Your task to perform on an android device: see creations saved in the google photos Image 0: 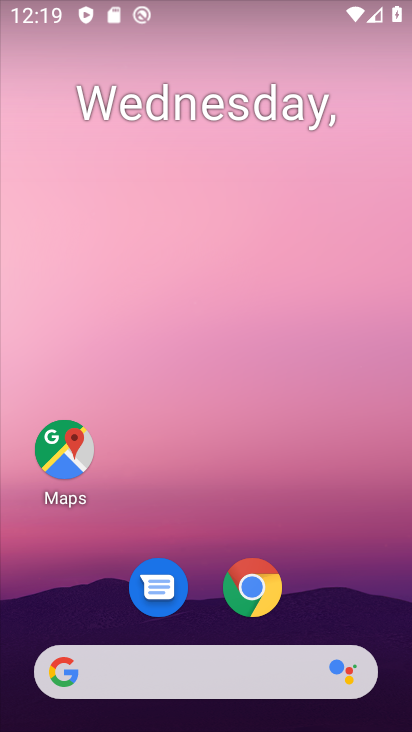
Step 0: drag from (321, 585) to (234, 71)
Your task to perform on an android device: see creations saved in the google photos Image 1: 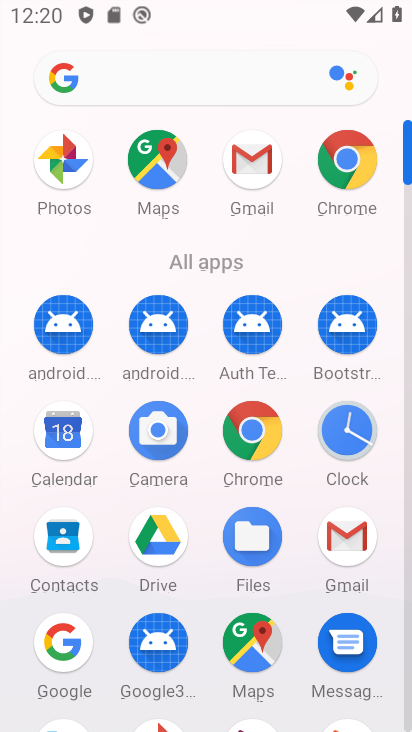
Step 1: drag from (278, 636) to (298, 343)
Your task to perform on an android device: see creations saved in the google photos Image 2: 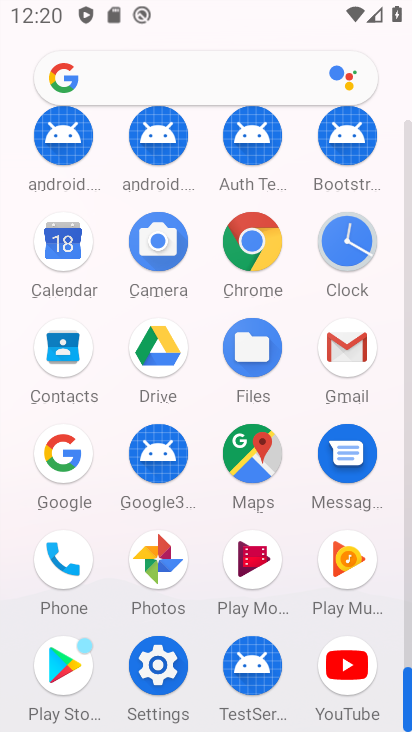
Step 2: click (155, 567)
Your task to perform on an android device: see creations saved in the google photos Image 3: 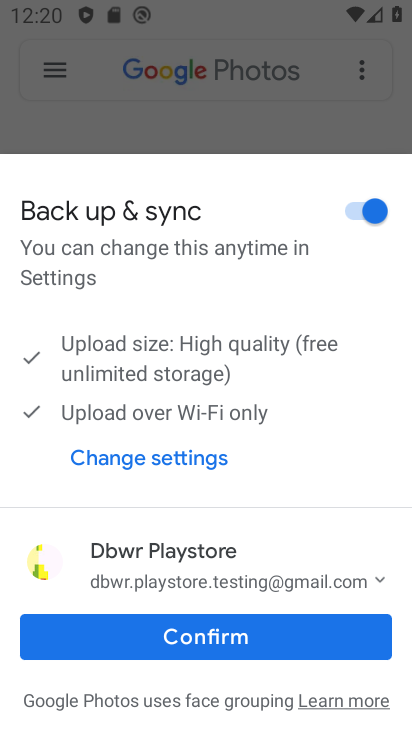
Step 3: click (242, 648)
Your task to perform on an android device: see creations saved in the google photos Image 4: 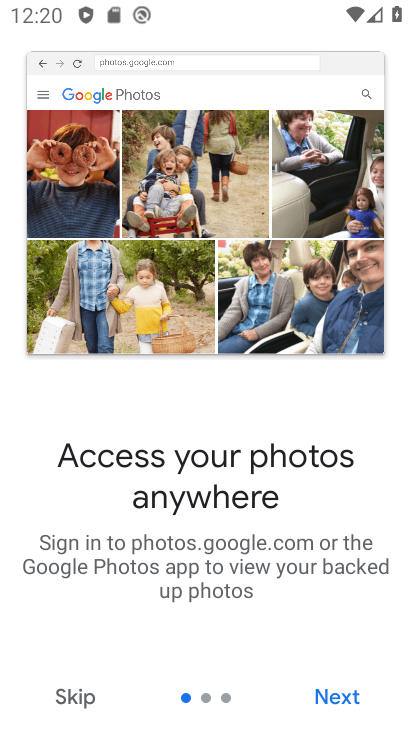
Step 4: click (315, 693)
Your task to perform on an android device: see creations saved in the google photos Image 5: 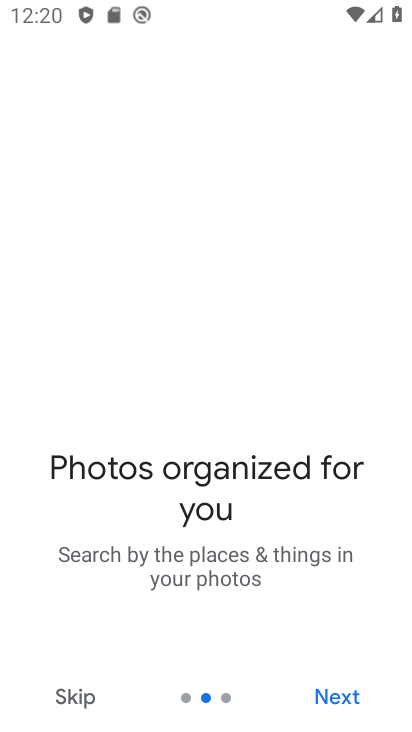
Step 5: click (346, 694)
Your task to perform on an android device: see creations saved in the google photos Image 6: 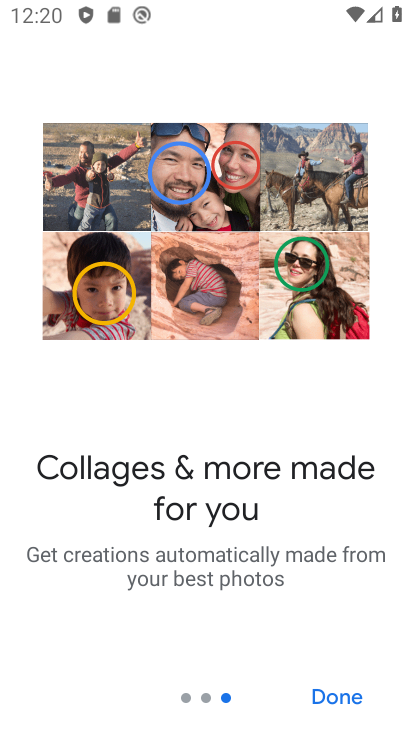
Step 6: click (345, 693)
Your task to perform on an android device: see creations saved in the google photos Image 7: 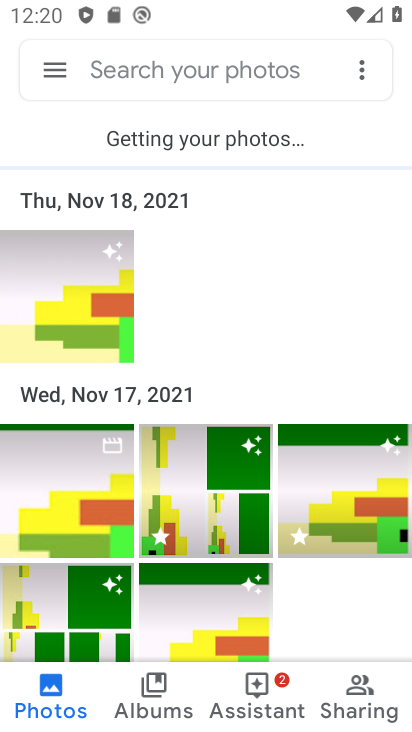
Step 7: click (205, 58)
Your task to perform on an android device: see creations saved in the google photos Image 8: 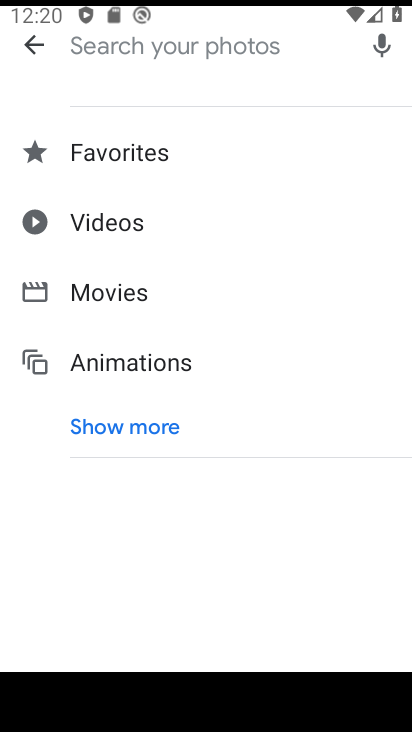
Step 8: click (129, 429)
Your task to perform on an android device: see creations saved in the google photos Image 9: 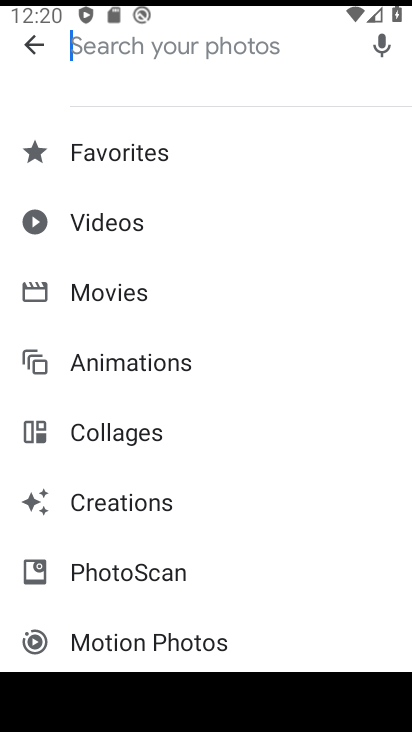
Step 9: click (128, 504)
Your task to perform on an android device: see creations saved in the google photos Image 10: 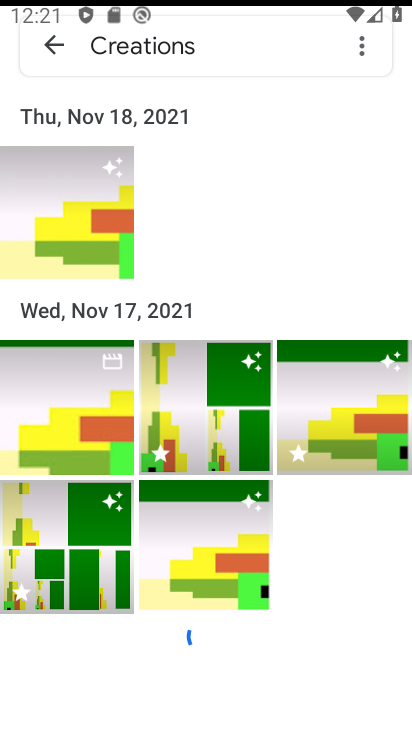
Step 10: task complete